Your task to perform on an android device: toggle show notifications on the lock screen Image 0: 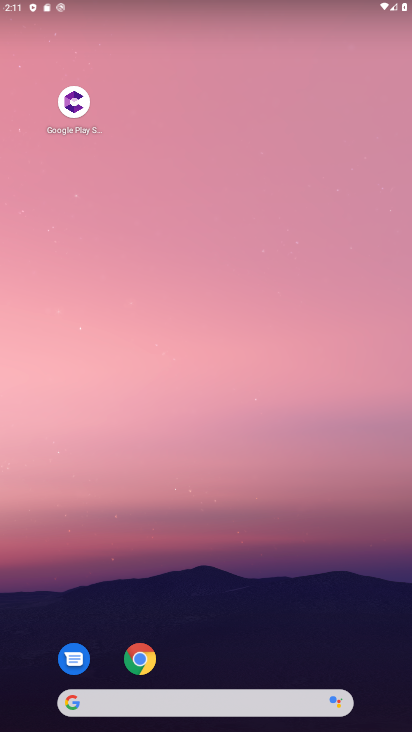
Step 0: drag from (253, 585) to (263, 11)
Your task to perform on an android device: toggle show notifications on the lock screen Image 1: 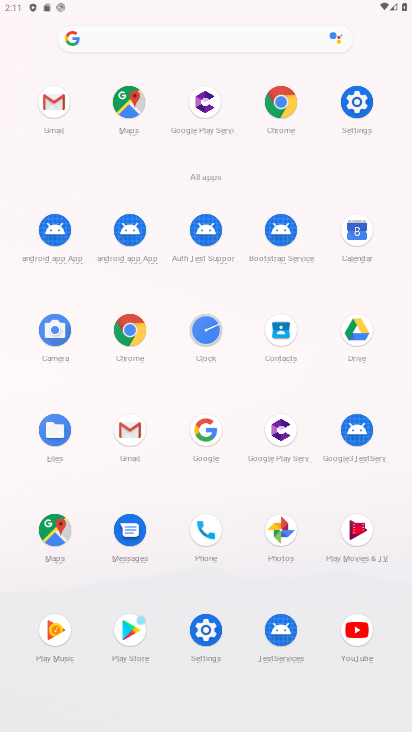
Step 1: click (359, 102)
Your task to perform on an android device: toggle show notifications on the lock screen Image 2: 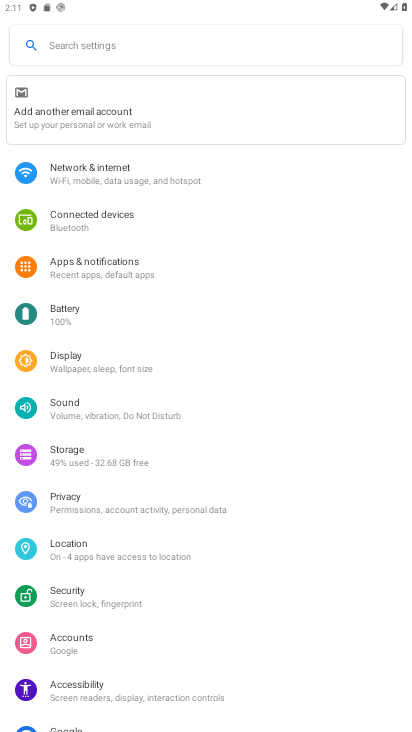
Step 2: click (150, 259)
Your task to perform on an android device: toggle show notifications on the lock screen Image 3: 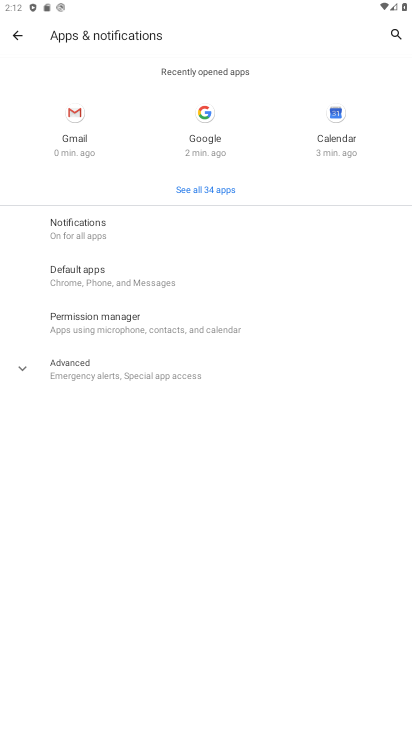
Step 3: click (175, 232)
Your task to perform on an android device: toggle show notifications on the lock screen Image 4: 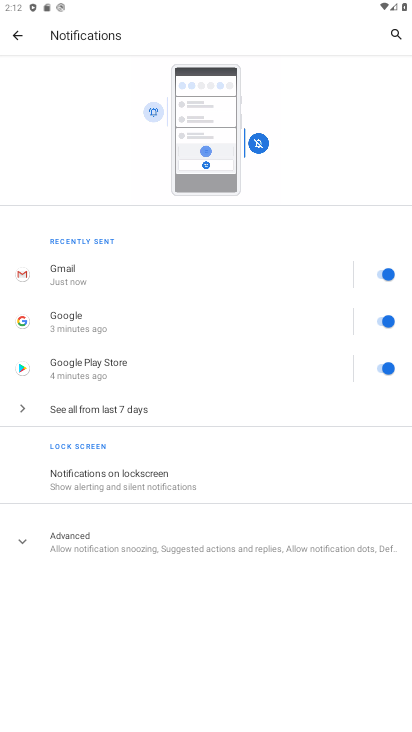
Step 4: click (185, 473)
Your task to perform on an android device: toggle show notifications on the lock screen Image 5: 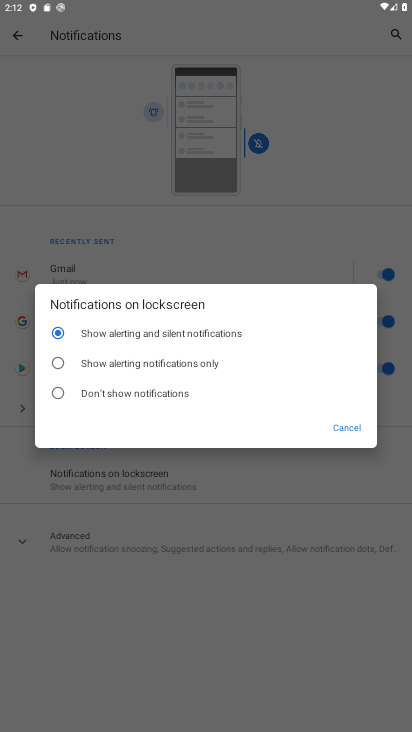
Step 5: click (163, 369)
Your task to perform on an android device: toggle show notifications on the lock screen Image 6: 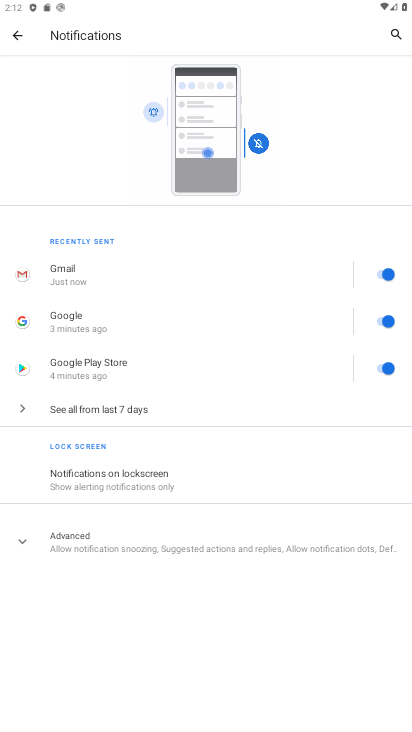
Step 6: task complete